Your task to perform on an android device: uninstall "Chime – Mobile Banking" Image 0: 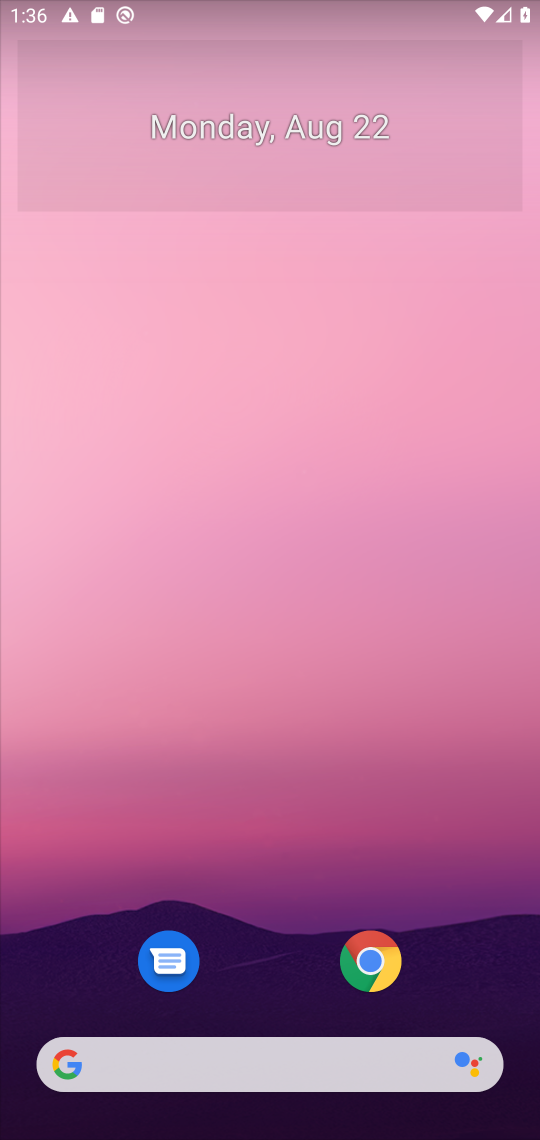
Step 0: press home button
Your task to perform on an android device: uninstall "Chime – Mobile Banking" Image 1: 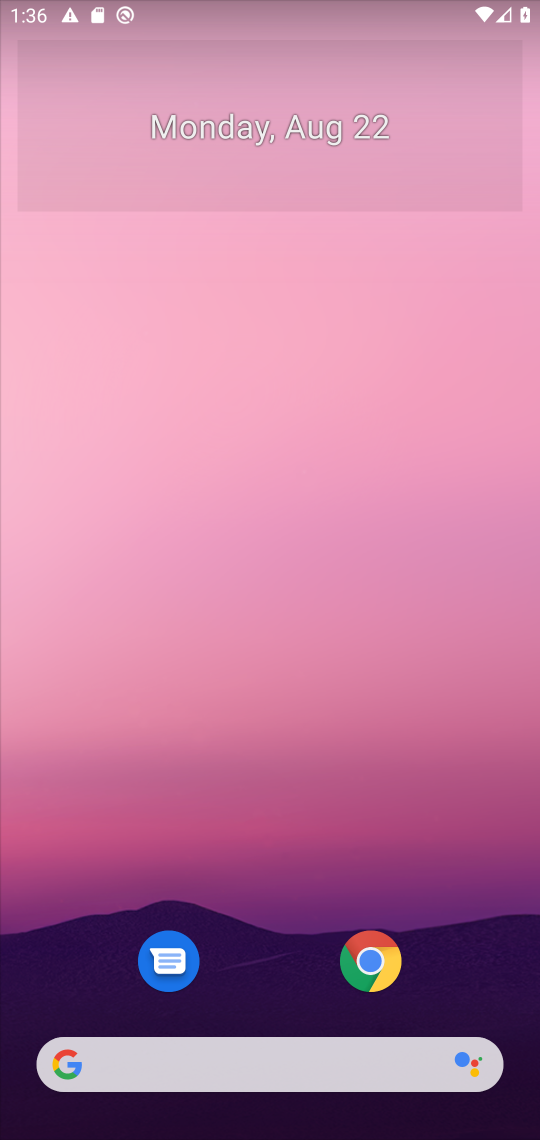
Step 1: drag from (499, 851) to (456, 168)
Your task to perform on an android device: uninstall "Chime – Mobile Banking" Image 2: 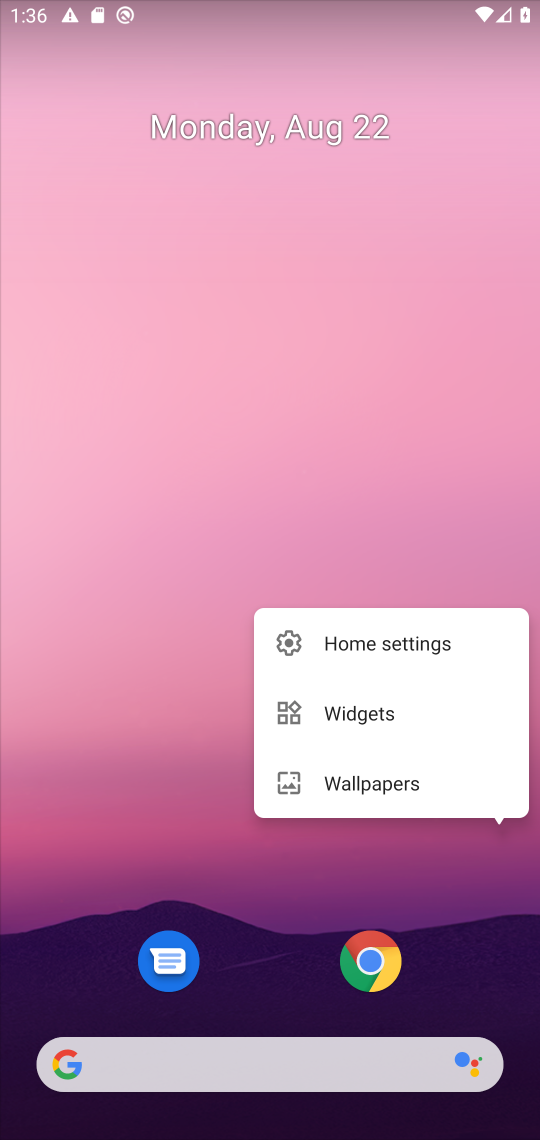
Step 2: click (432, 886)
Your task to perform on an android device: uninstall "Chime – Mobile Banking" Image 3: 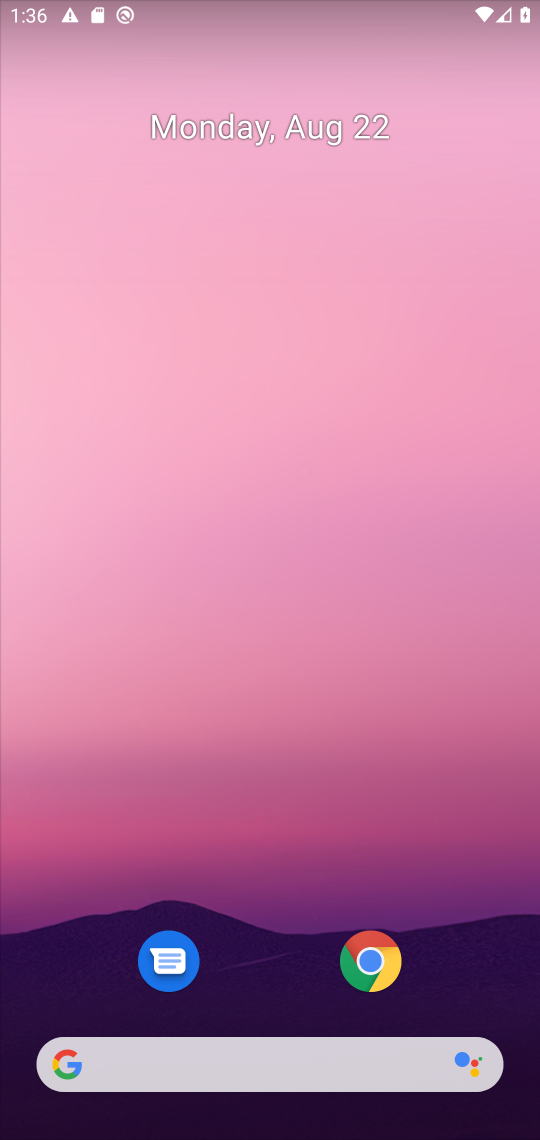
Step 3: drag from (456, 952) to (432, 38)
Your task to perform on an android device: uninstall "Chime – Mobile Banking" Image 4: 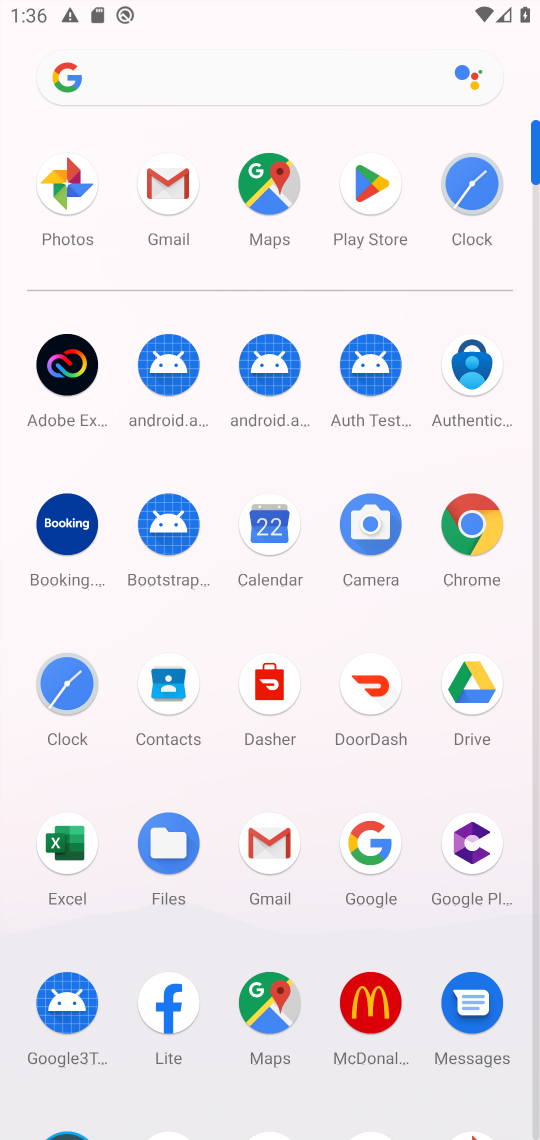
Step 4: click (387, 186)
Your task to perform on an android device: uninstall "Chime – Mobile Banking" Image 5: 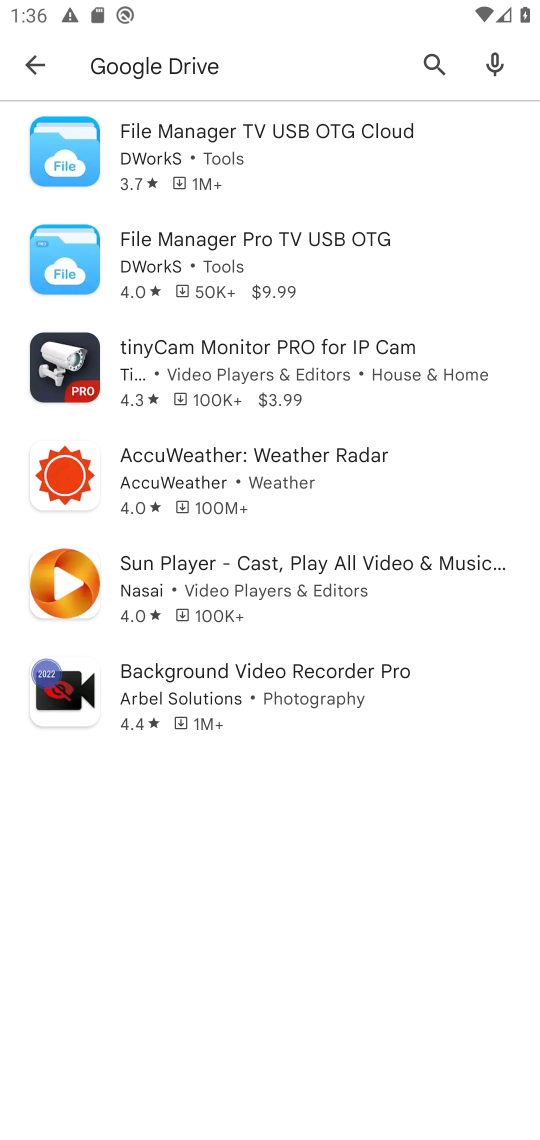
Step 5: press back button
Your task to perform on an android device: uninstall "Chime – Mobile Banking" Image 6: 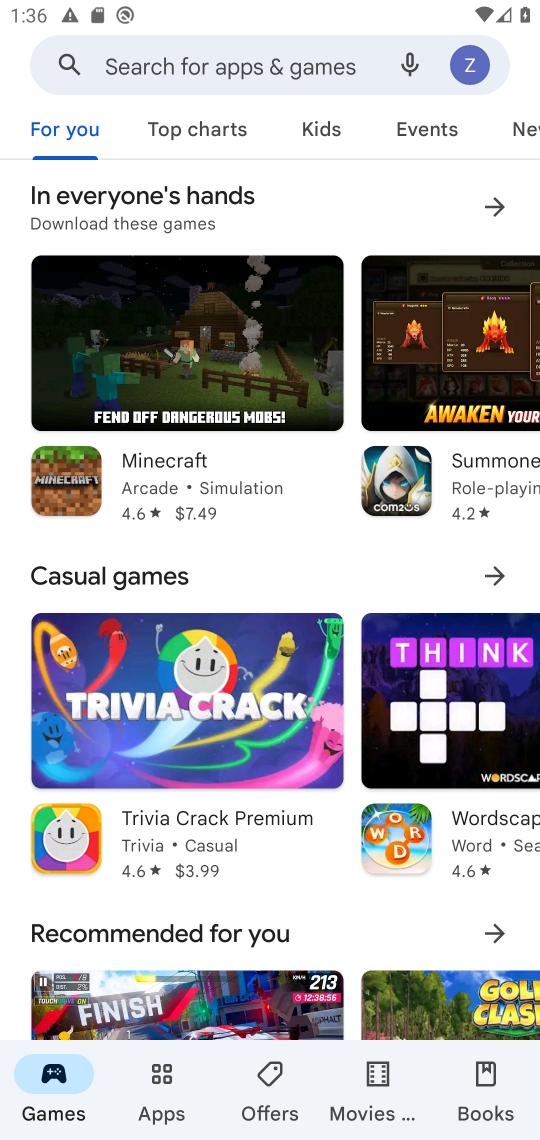
Step 6: click (293, 59)
Your task to perform on an android device: uninstall "Chime – Mobile Banking" Image 7: 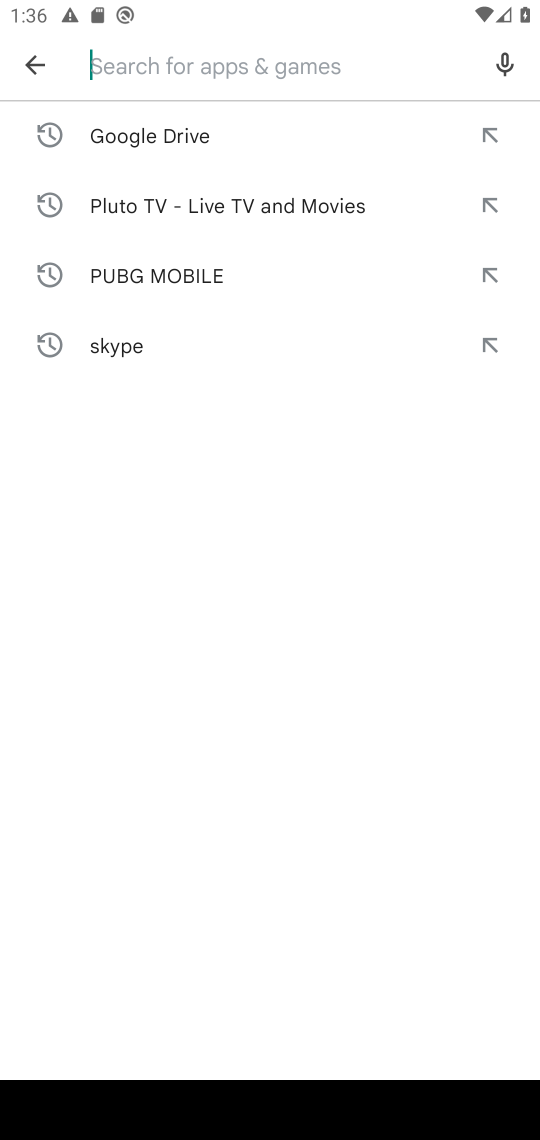
Step 7: type "Chime – Mobile Banking"
Your task to perform on an android device: uninstall "Chime – Mobile Banking" Image 8: 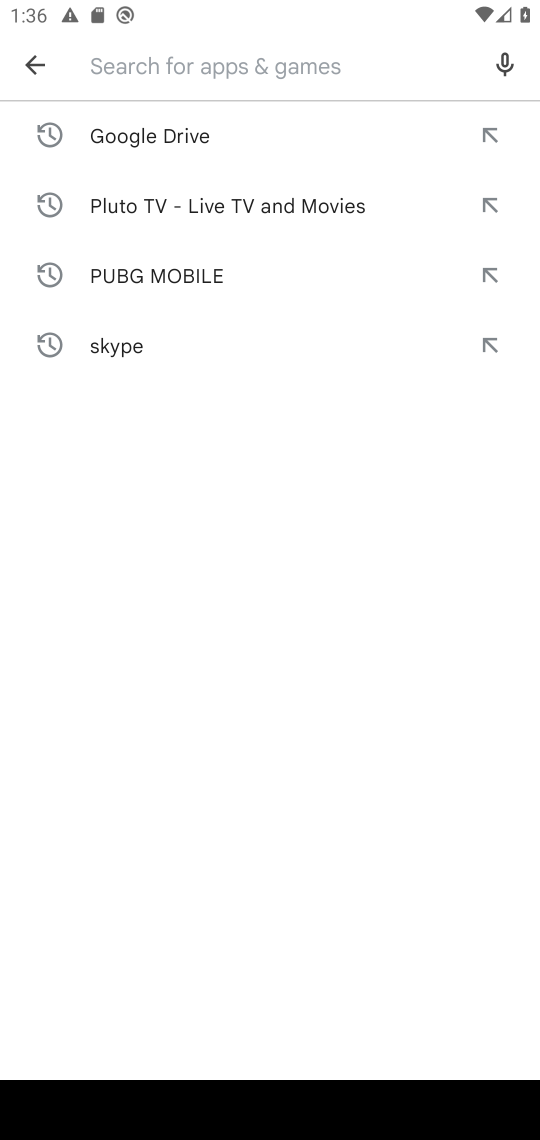
Step 8: press enter
Your task to perform on an android device: uninstall "Chime – Mobile Banking" Image 9: 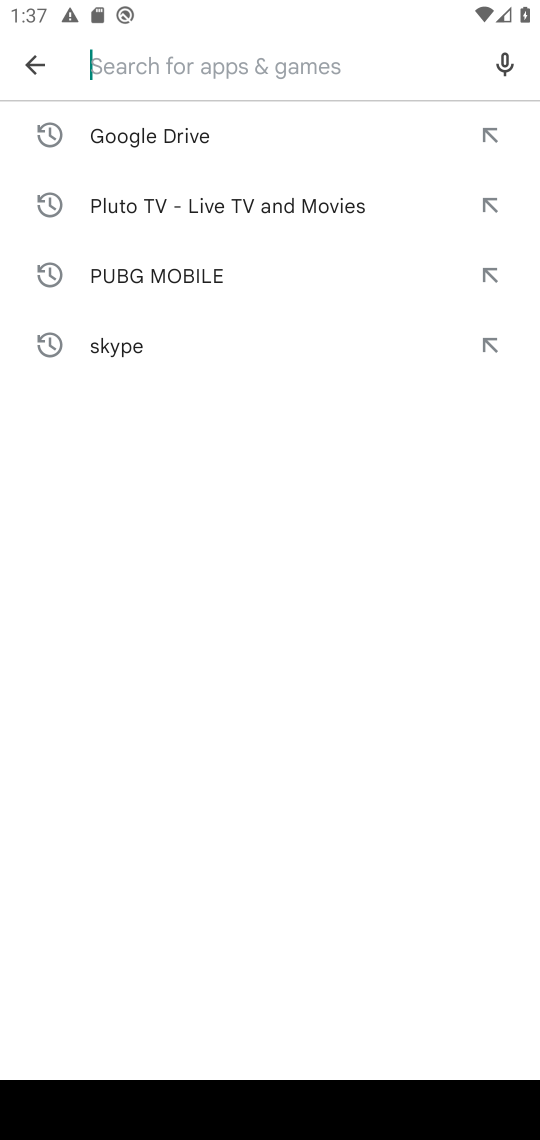
Step 9: task complete